Your task to perform on an android device: Do I have any events tomorrow? Image 0: 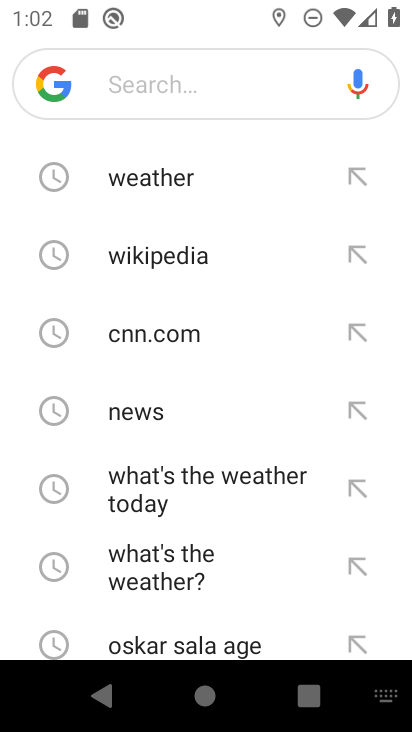
Step 0: press home button
Your task to perform on an android device: Do I have any events tomorrow? Image 1: 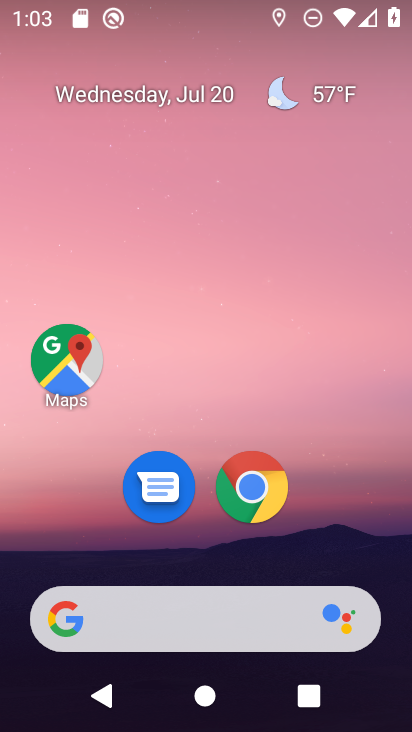
Step 1: drag from (360, 541) to (337, 100)
Your task to perform on an android device: Do I have any events tomorrow? Image 2: 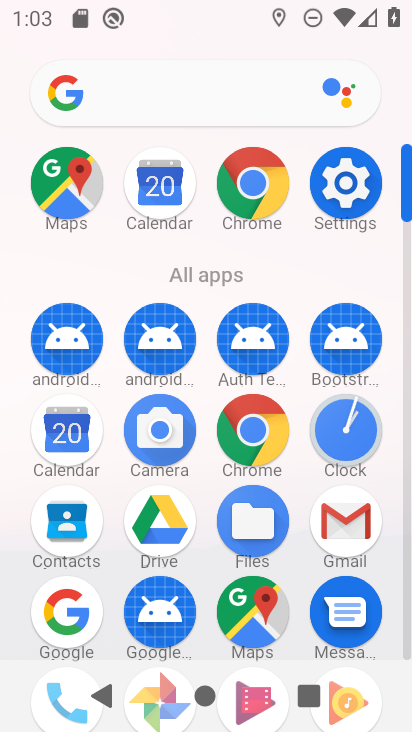
Step 2: click (66, 449)
Your task to perform on an android device: Do I have any events tomorrow? Image 3: 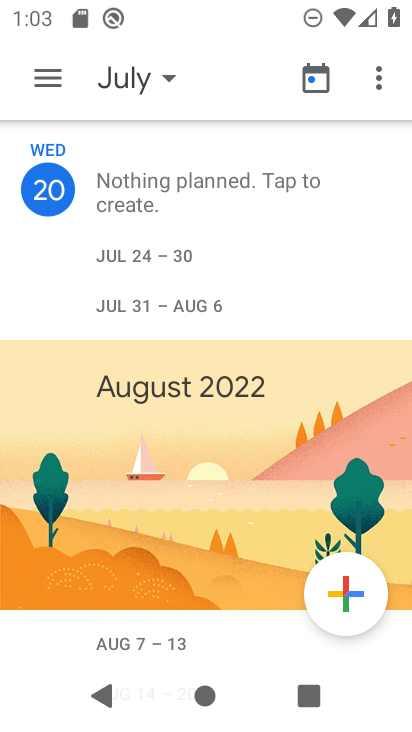
Step 3: click (158, 86)
Your task to perform on an android device: Do I have any events tomorrow? Image 4: 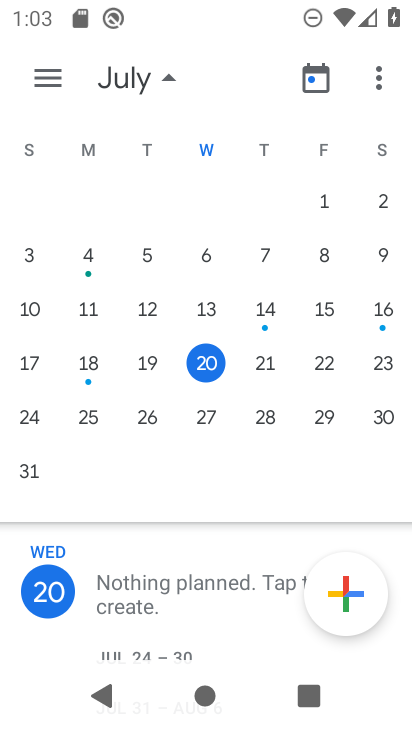
Step 4: click (269, 362)
Your task to perform on an android device: Do I have any events tomorrow? Image 5: 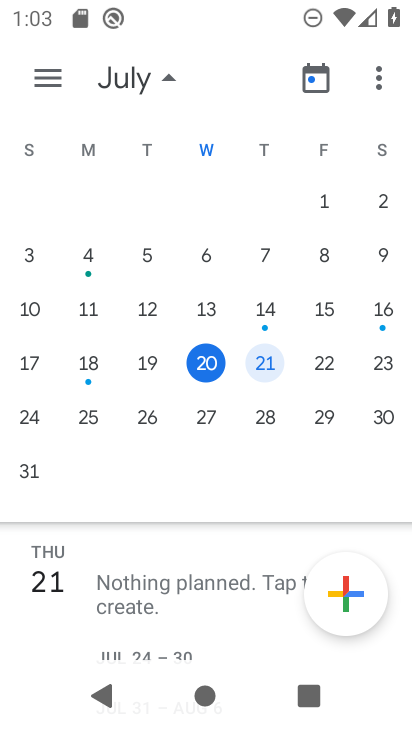
Step 5: task complete